Your task to perform on an android device: Go to notification settings Image 0: 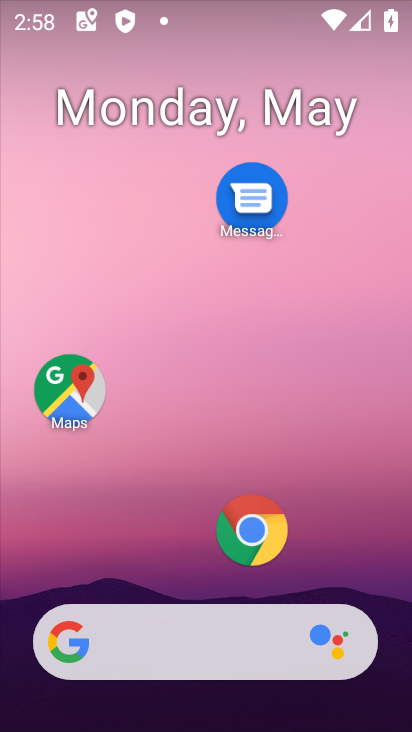
Step 0: drag from (98, 541) to (248, 31)
Your task to perform on an android device: Go to notification settings Image 1: 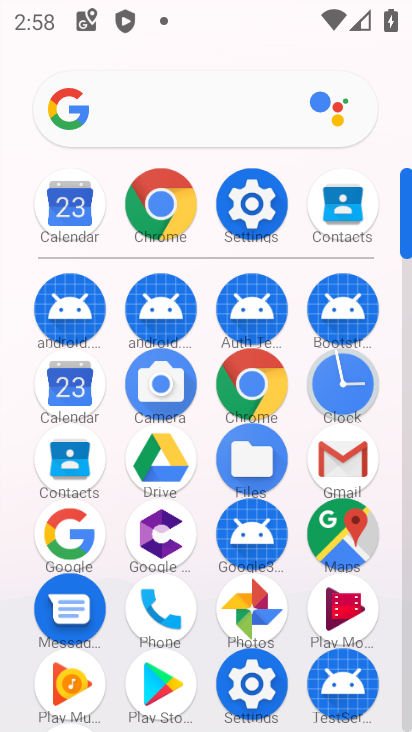
Step 1: click (243, 197)
Your task to perform on an android device: Go to notification settings Image 2: 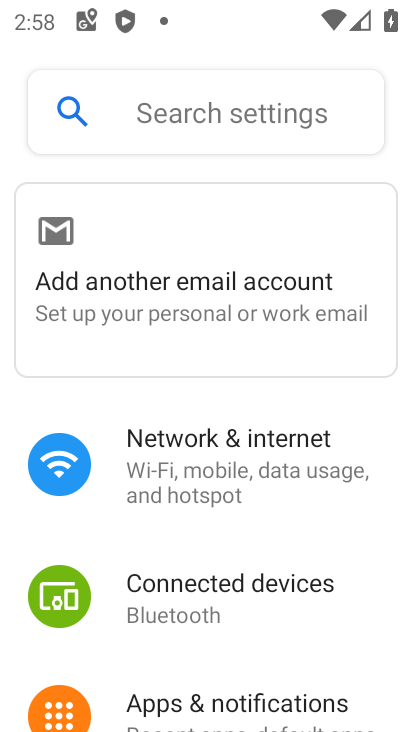
Step 2: click (190, 698)
Your task to perform on an android device: Go to notification settings Image 3: 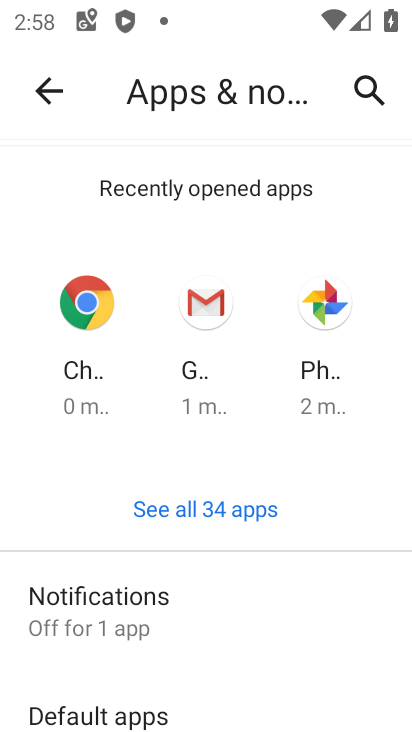
Step 3: task complete